Your task to perform on an android device: Open Google Image 0: 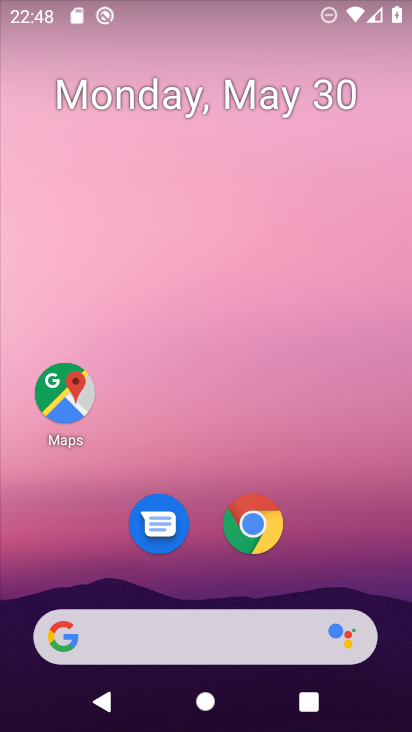
Step 0: click (161, 642)
Your task to perform on an android device: Open Google Image 1: 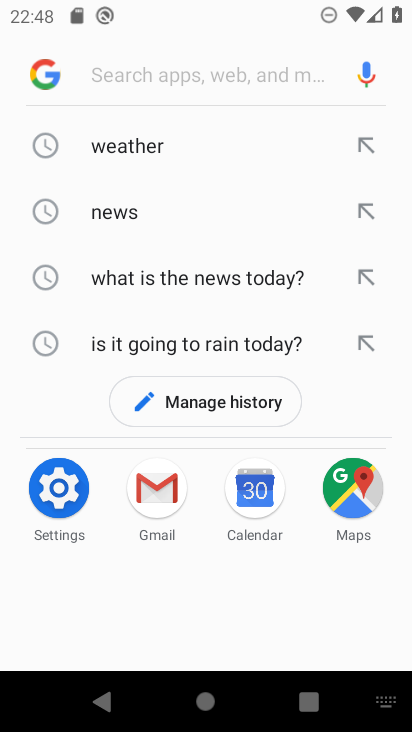
Step 1: click (41, 71)
Your task to perform on an android device: Open Google Image 2: 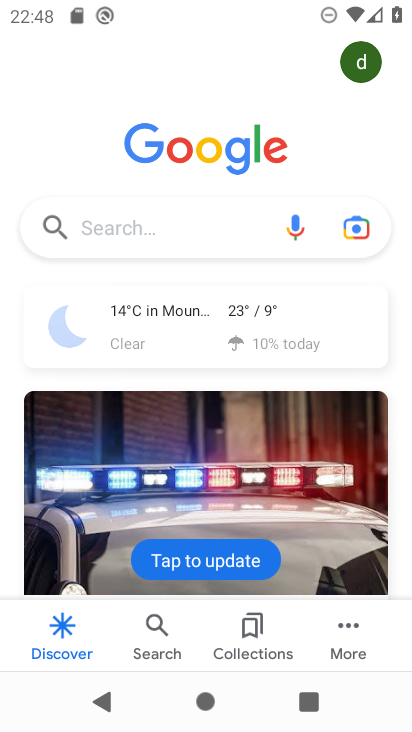
Step 2: task complete